Your task to perform on an android device: clear all cookies in the chrome app Image 0: 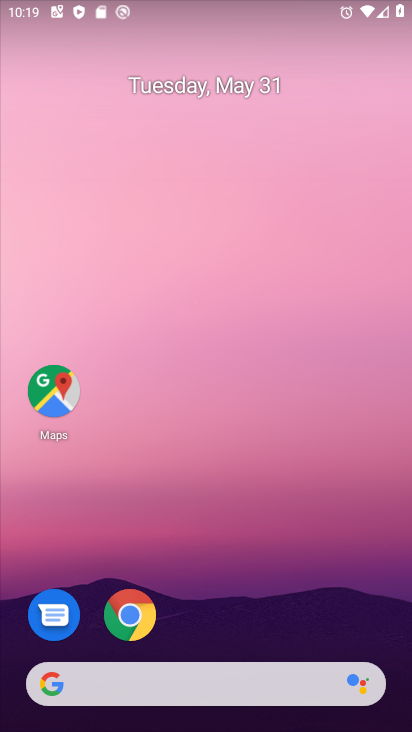
Step 0: drag from (328, 576) to (297, 38)
Your task to perform on an android device: clear all cookies in the chrome app Image 1: 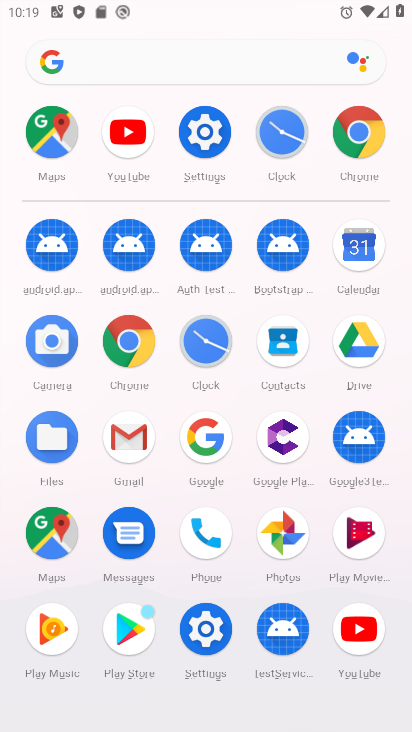
Step 1: click (368, 129)
Your task to perform on an android device: clear all cookies in the chrome app Image 2: 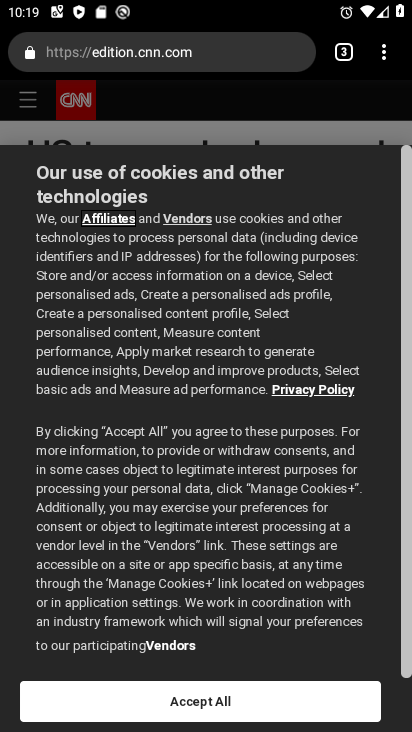
Step 2: drag from (392, 60) to (206, 585)
Your task to perform on an android device: clear all cookies in the chrome app Image 3: 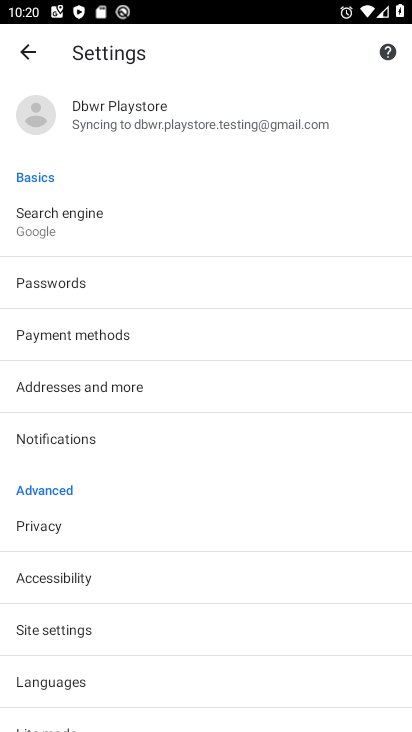
Step 3: drag from (187, 572) to (199, 230)
Your task to perform on an android device: clear all cookies in the chrome app Image 4: 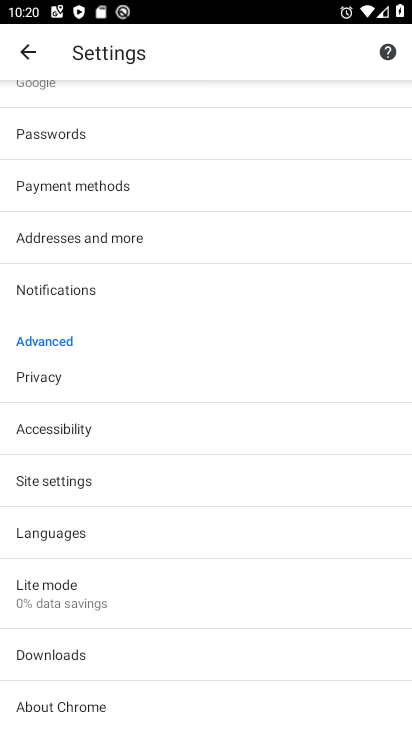
Step 4: click (45, 482)
Your task to perform on an android device: clear all cookies in the chrome app Image 5: 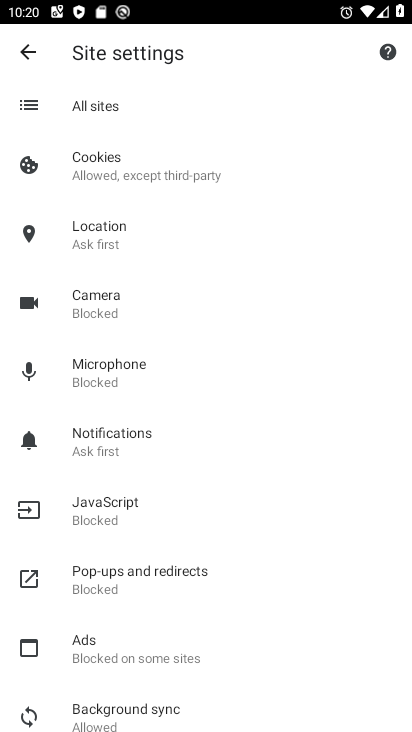
Step 5: click (109, 180)
Your task to perform on an android device: clear all cookies in the chrome app Image 6: 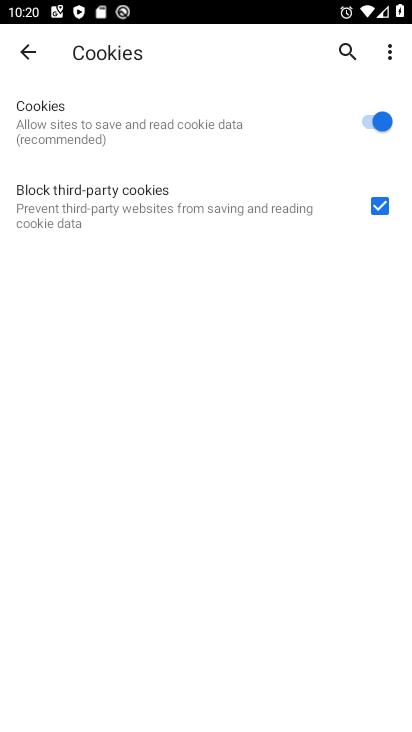
Step 6: task complete